Your task to perform on an android device: clear all cookies in the chrome app Image 0: 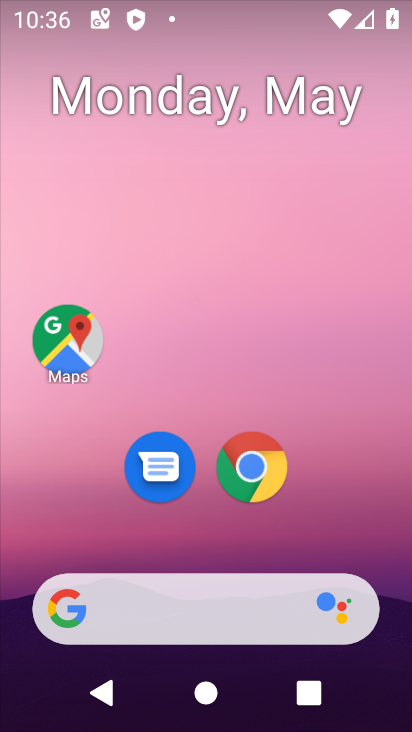
Step 0: click (251, 472)
Your task to perform on an android device: clear all cookies in the chrome app Image 1: 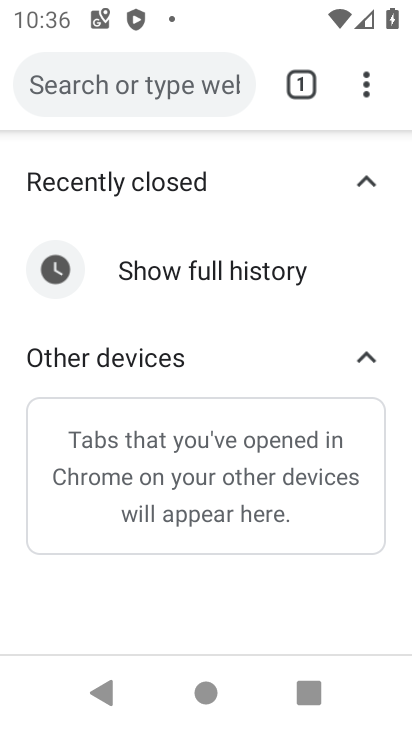
Step 1: click (361, 97)
Your task to perform on an android device: clear all cookies in the chrome app Image 2: 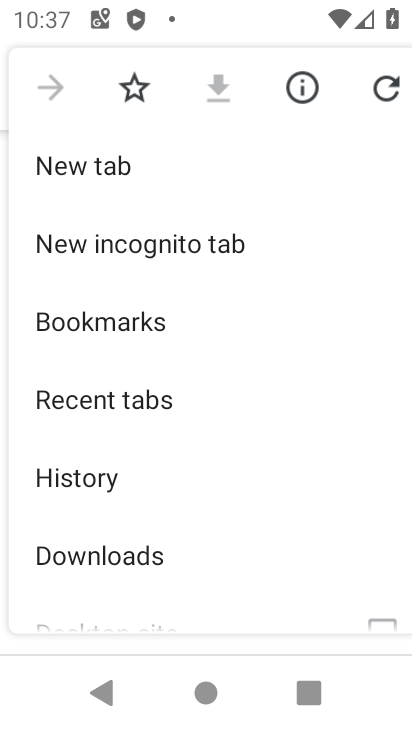
Step 2: click (83, 484)
Your task to perform on an android device: clear all cookies in the chrome app Image 3: 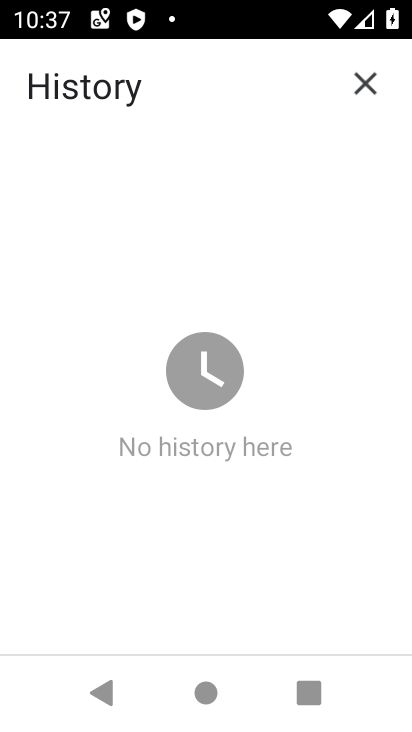
Step 3: task complete